Your task to perform on an android device: turn off picture-in-picture Image 0: 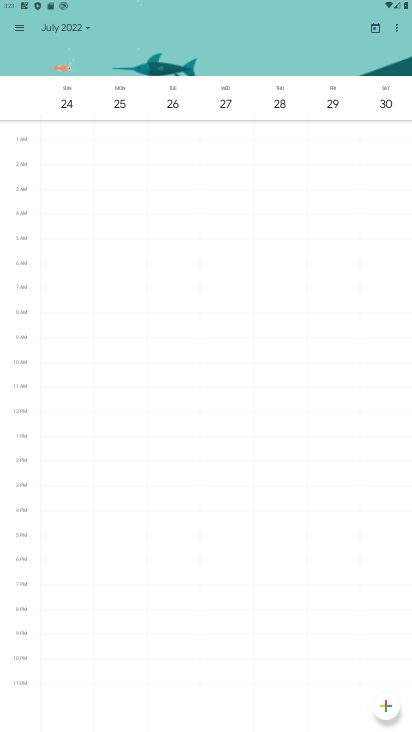
Step 0: press home button
Your task to perform on an android device: turn off picture-in-picture Image 1: 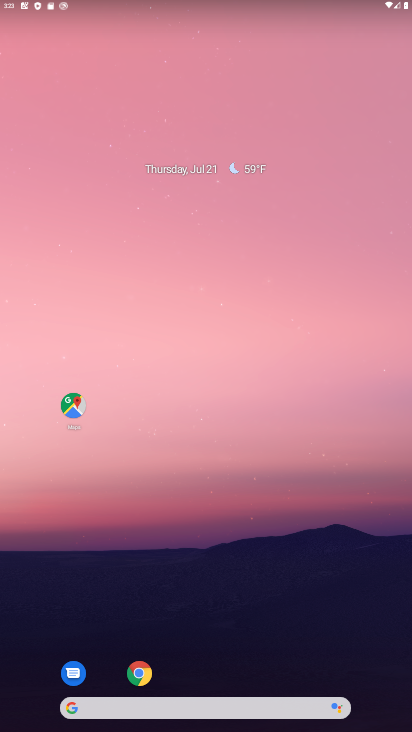
Step 1: drag from (361, 652) to (316, 115)
Your task to perform on an android device: turn off picture-in-picture Image 2: 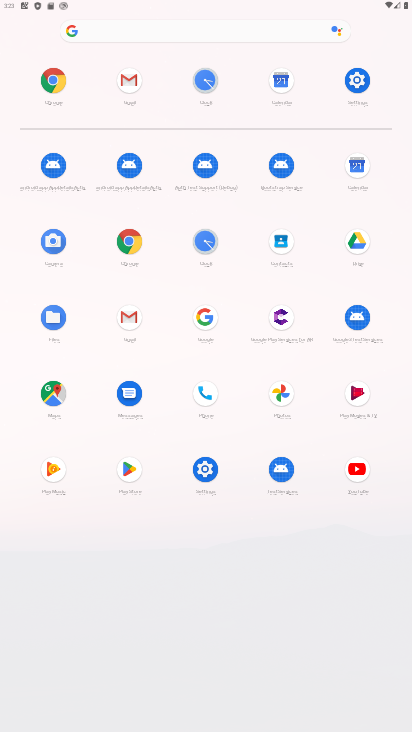
Step 2: click (205, 470)
Your task to perform on an android device: turn off picture-in-picture Image 3: 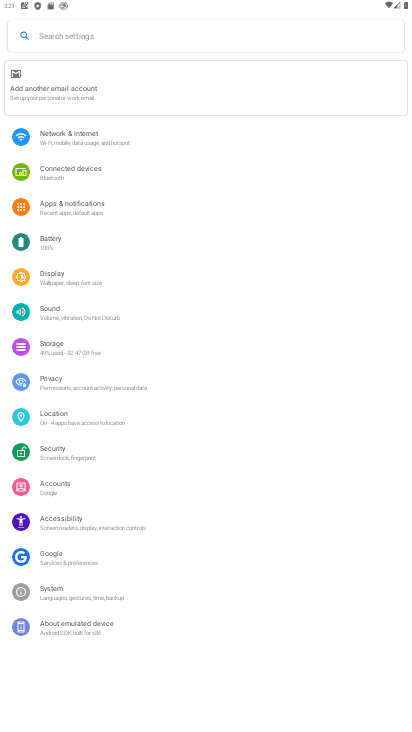
Step 3: click (74, 203)
Your task to perform on an android device: turn off picture-in-picture Image 4: 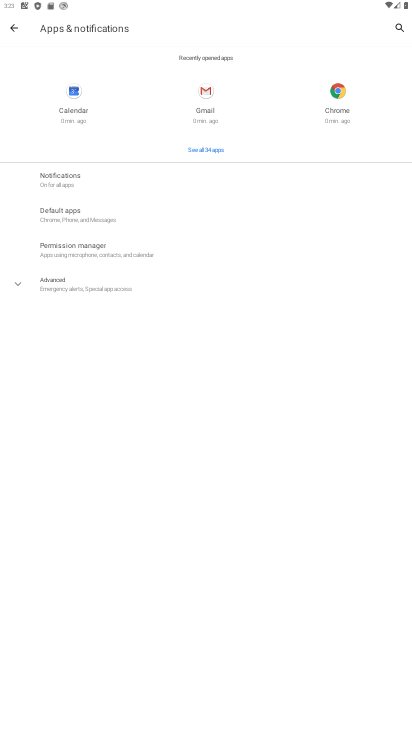
Step 4: click (17, 283)
Your task to perform on an android device: turn off picture-in-picture Image 5: 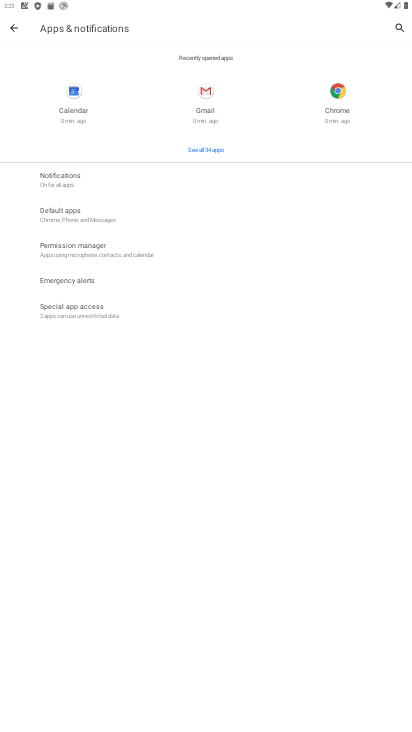
Step 5: click (62, 312)
Your task to perform on an android device: turn off picture-in-picture Image 6: 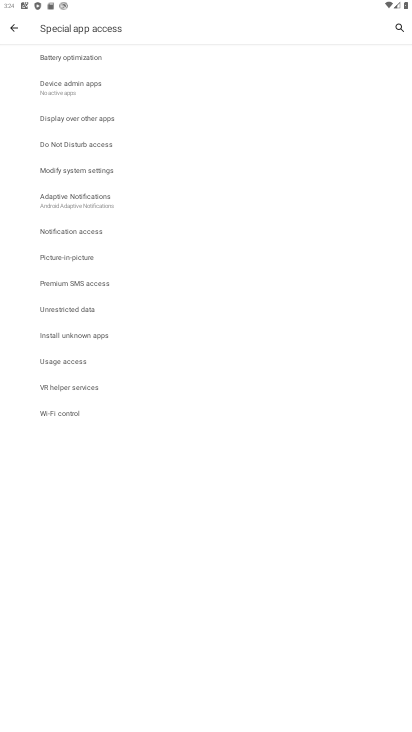
Step 6: click (68, 257)
Your task to perform on an android device: turn off picture-in-picture Image 7: 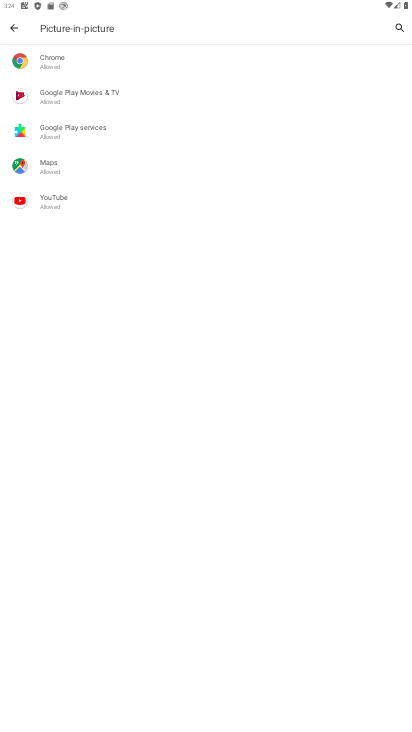
Step 7: click (43, 200)
Your task to perform on an android device: turn off picture-in-picture Image 8: 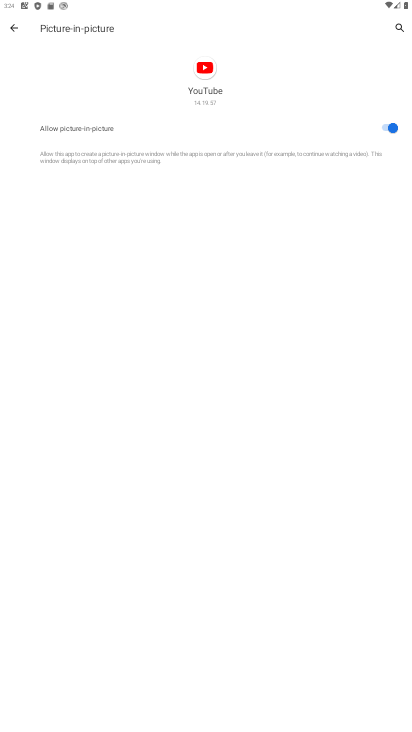
Step 8: click (380, 128)
Your task to perform on an android device: turn off picture-in-picture Image 9: 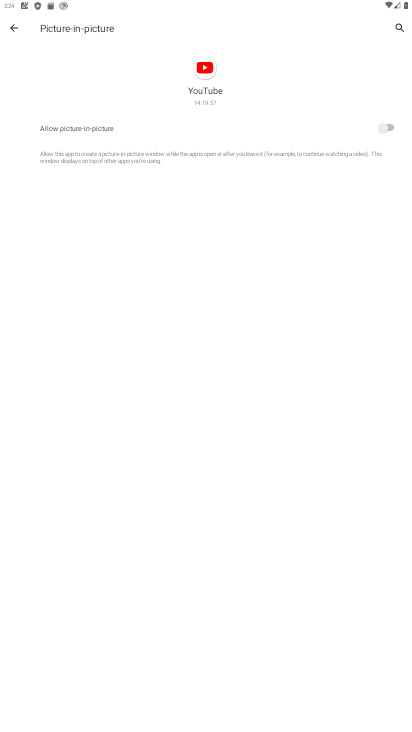
Step 9: task complete